Your task to perform on an android device: set an alarm Image 0: 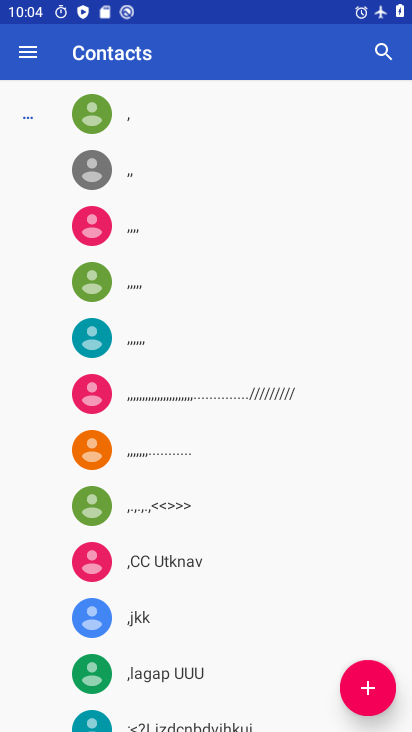
Step 0: press back button
Your task to perform on an android device: set an alarm Image 1: 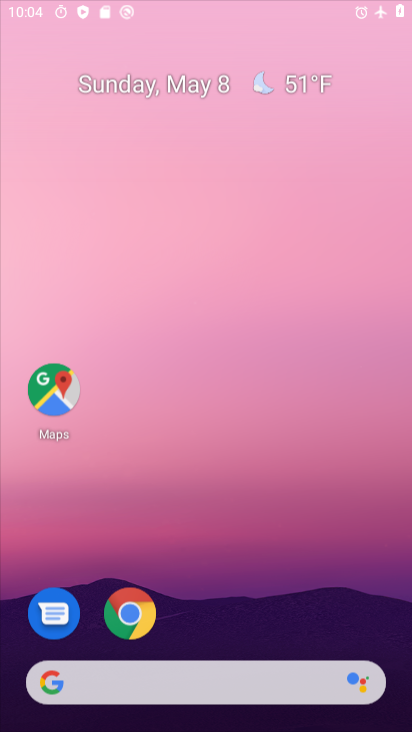
Step 1: press home button
Your task to perform on an android device: set an alarm Image 2: 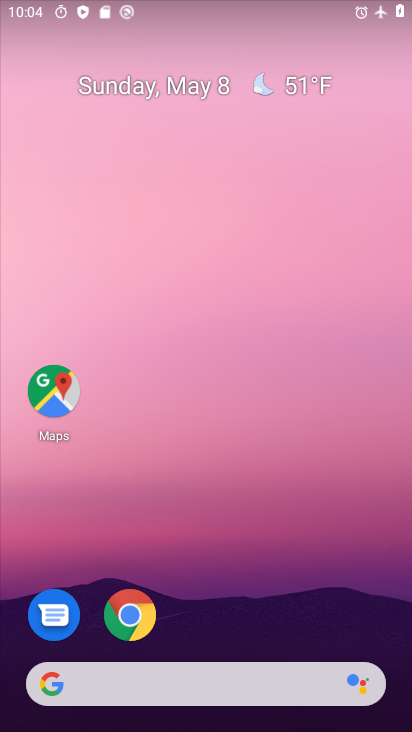
Step 2: drag from (255, 610) to (185, 206)
Your task to perform on an android device: set an alarm Image 3: 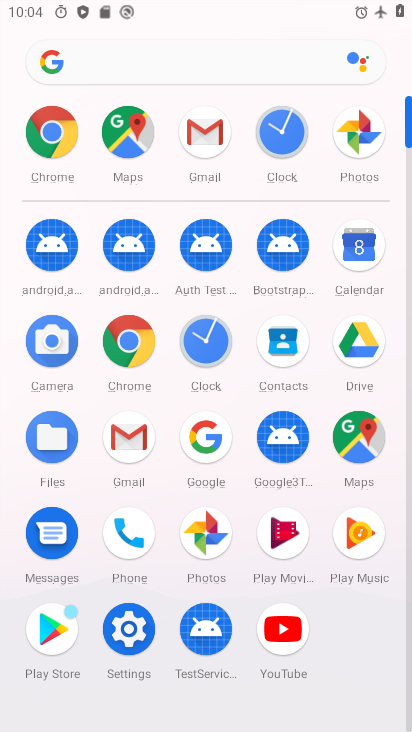
Step 3: click (277, 141)
Your task to perform on an android device: set an alarm Image 4: 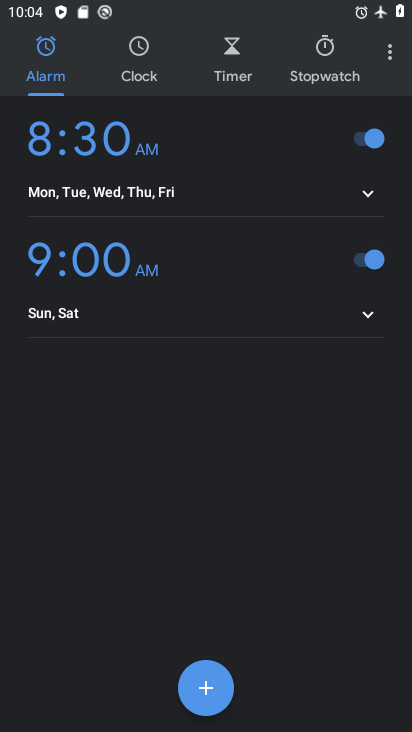
Step 4: task complete